Your task to perform on an android device: change alarm snooze length Image 0: 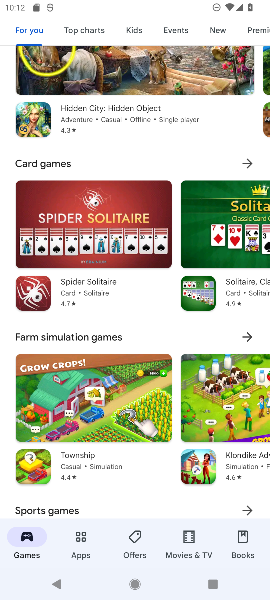
Step 0: press home button
Your task to perform on an android device: change alarm snooze length Image 1: 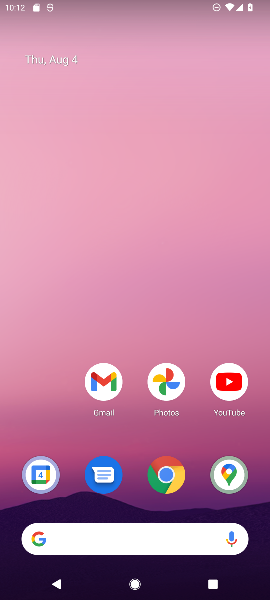
Step 1: drag from (124, 545) to (188, 133)
Your task to perform on an android device: change alarm snooze length Image 2: 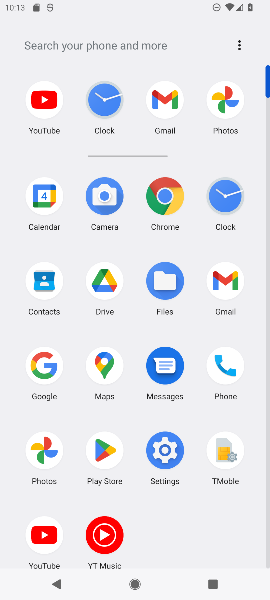
Step 2: drag from (167, 396) to (268, 404)
Your task to perform on an android device: change alarm snooze length Image 3: 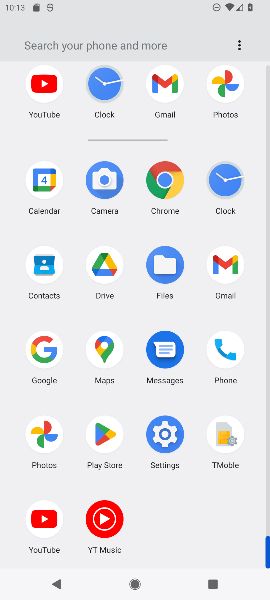
Step 3: drag from (158, 505) to (167, 194)
Your task to perform on an android device: change alarm snooze length Image 4: 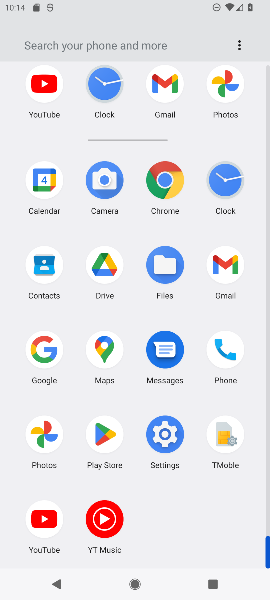
Step 4: drag from (134, 504) to (154, 218)
Your task to perform on an android device: change alarm snooze length Image 5: 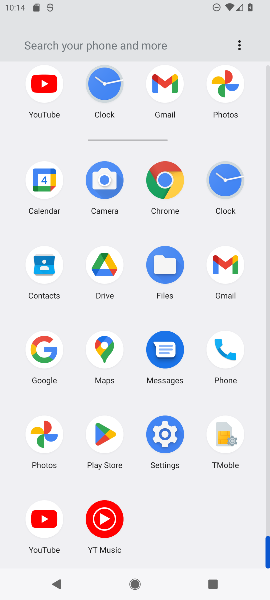
Step 5: drag from (152, 426) to (146, 270)
Your task to perform on an android device: change alarm snooze length Image 6: 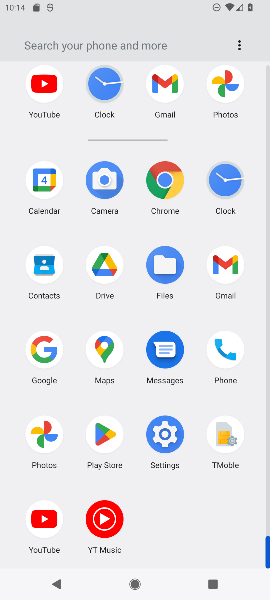
Step 6: click (229, 180)
Your task to perform on an android device: change alarm snooze length Image 7: 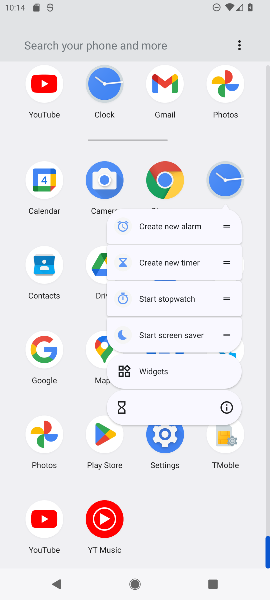
Step 7: click (222, 400)
Your task to perform on an android device: change alarm snooze length Image 8: 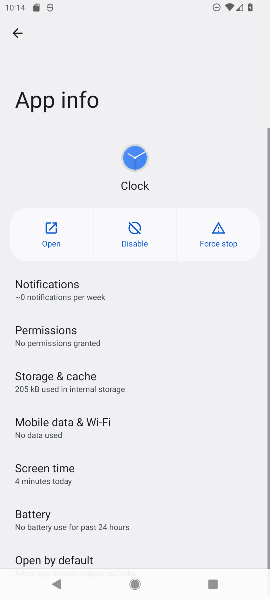
Step 8: click (40, 239)
Your task to perform on an android device: change alarm snooze length Image 9: 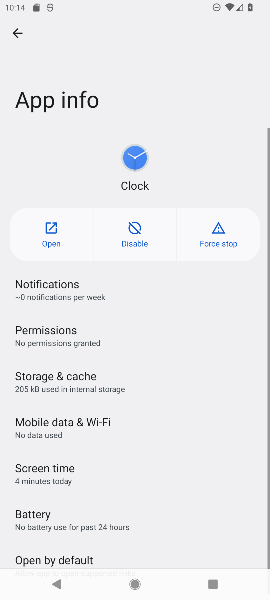
Step 9: click (42, 237)
Your task to perform on an android device: change alarm snooze length Image 10: 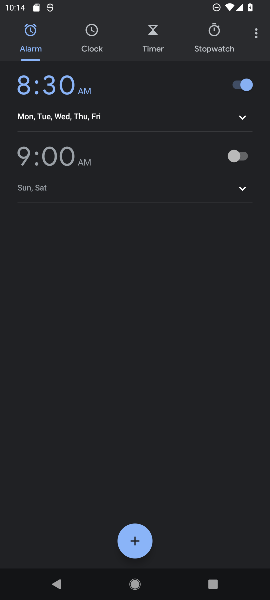
Step 10: drag from (186, 433) to (170, 294)
Your task to perform on an android device: change alarm snooze length Image 11: 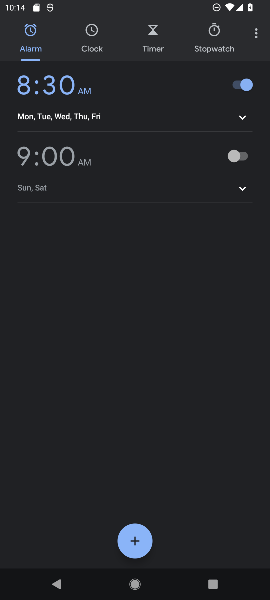
Step 11: drag from (171, 486) to (161, 277)
Your task to perform on an android device: change alarm snooze length Image 12: 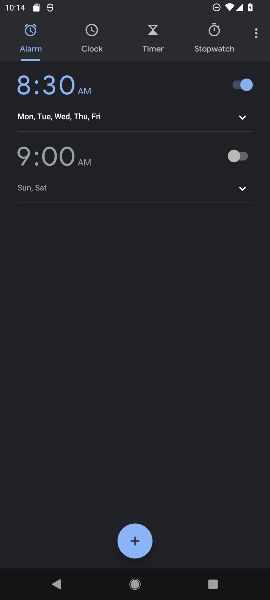
Step 12: click (255, 36)
Your task to perform on an android device: change alarm snooze length Image 13: 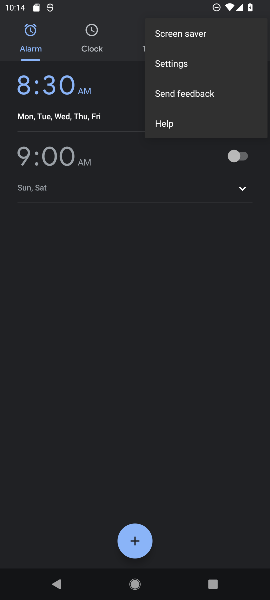
Step 13: click (213, 56)
Your task to perform on an android device: change alarm snooze length Image 14: 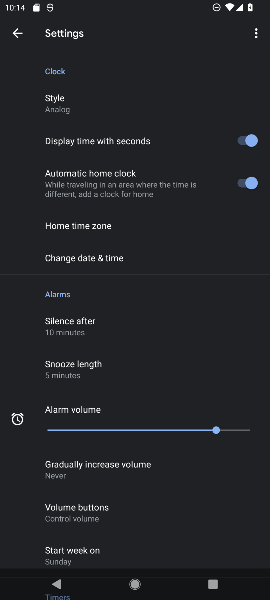
Step 14: drag from (154, 489) to (138, 300)
Your task to perform on an android device: change alarm snooze length Image 15: 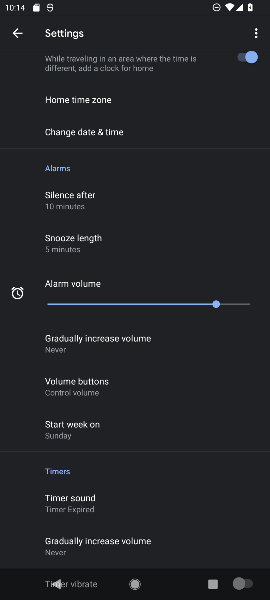
Step 15: click (96, 234)
Your task to perform on an android device: change alarm snooze length Image 16: 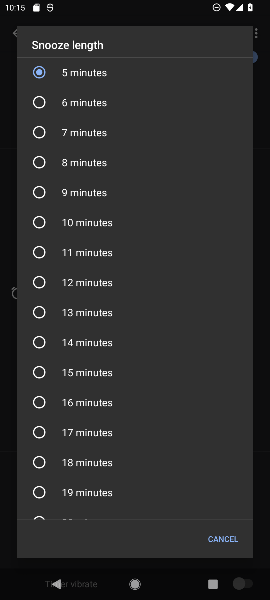
Step 16: drag from (186, 451) to (161, 164)
Your task to perform on an android device: change alarm snooze length Image 17: 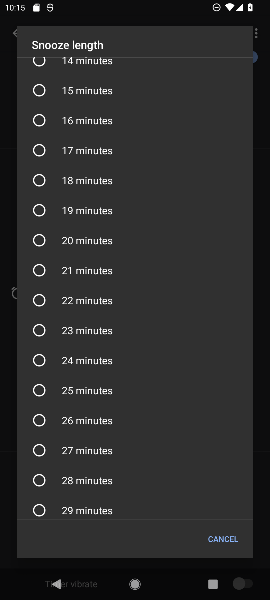
Step 17: drag from (104, 123) to (196, 586)
Your task to perform on an android device: change alarm snooze length Image 18: 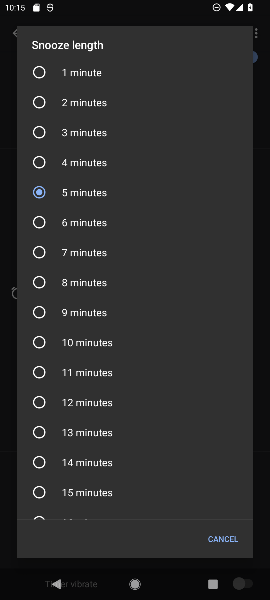
Step 18: drag from (89, 107) to (108, 287)
Your task to perform on an android device: change alarm snooze length Image 19: 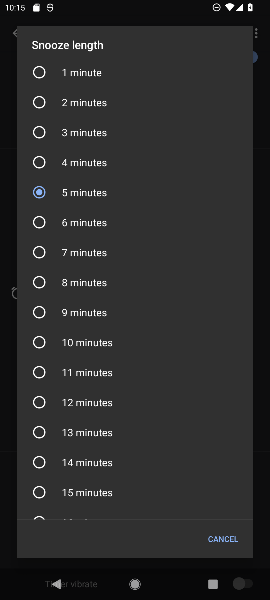
Step 19: click (40, 73)
Your task to perform on an android device: change alarm snooze length Image 20: 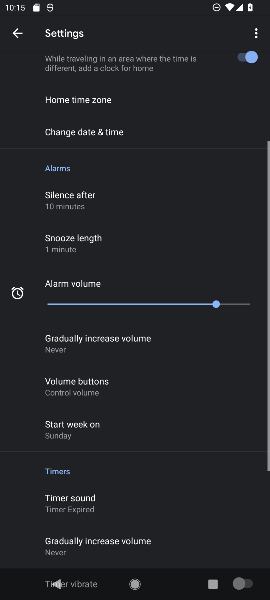
Step 20: task complete